Your task to perform on an android device: Go to calendar. Show me events next week Image 0: 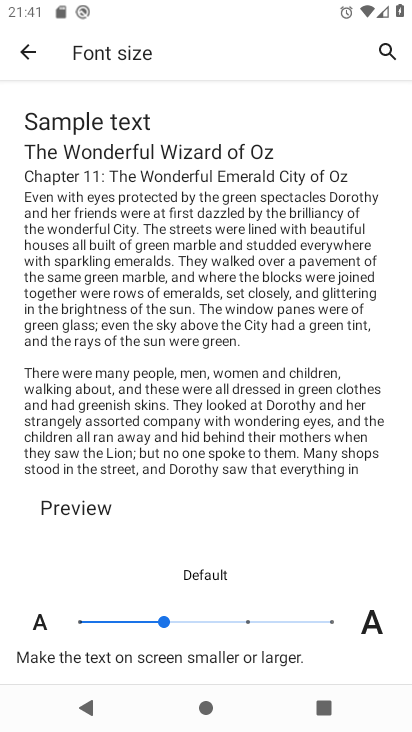
Step 0: press home button
Your task to perform on an android device: Go to calendar. Show me events next week Image 1: 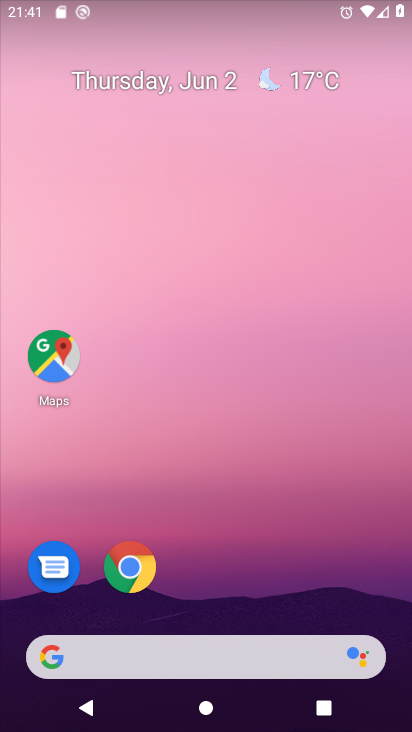
Step 1: drag from (207, 533) to (253, 46)
Your task to perform on an android device: Go to calendar. Show me events next week Image 2: 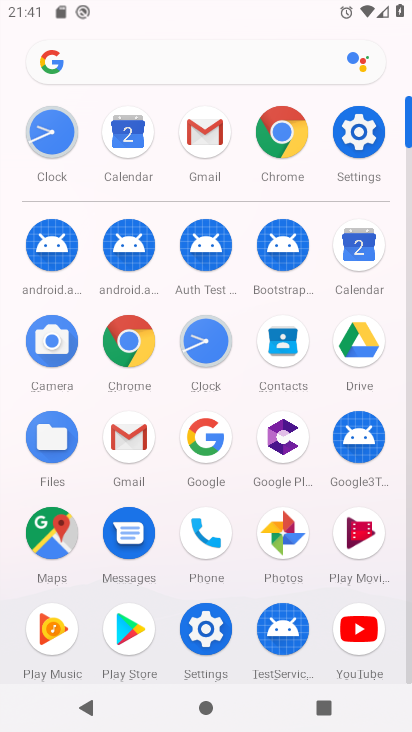
Step 2: click (367, 257)
Your task to perform on an android device: Go to calendar. Show me events next week Image 3: 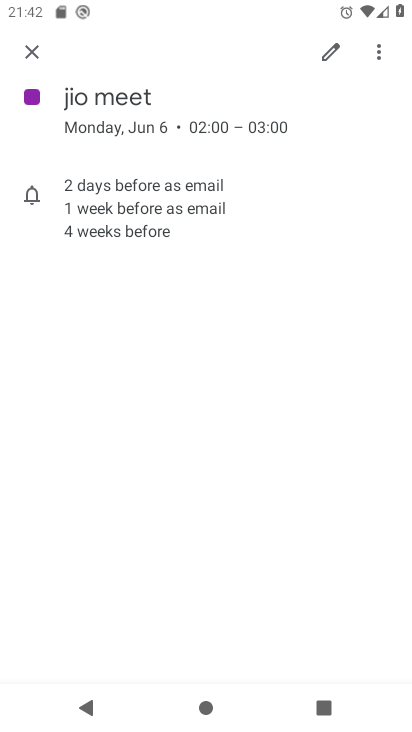
Step 3: click (31, 54)
Your task to perform on an android device: Go to calendar. Show me events next week Image 4: 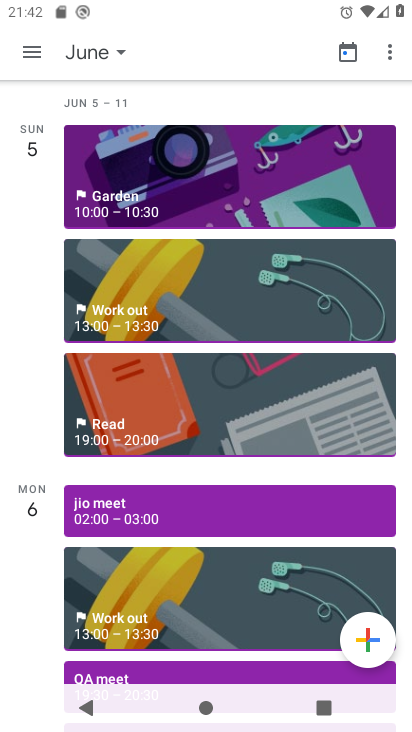
Step 4: click (31, 54)
Your task to perform on an android device: Go to calendar. Show me events next week Image 5: 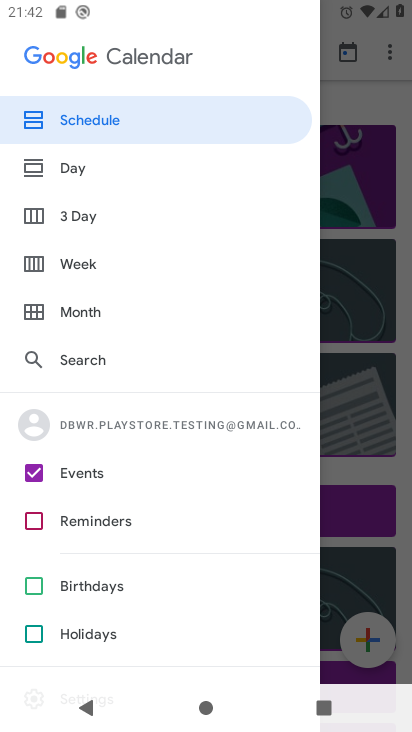
Step 5: click (93, 268)
Your task to perform on an android device: Go to calendar. Show me events next week Image 6: 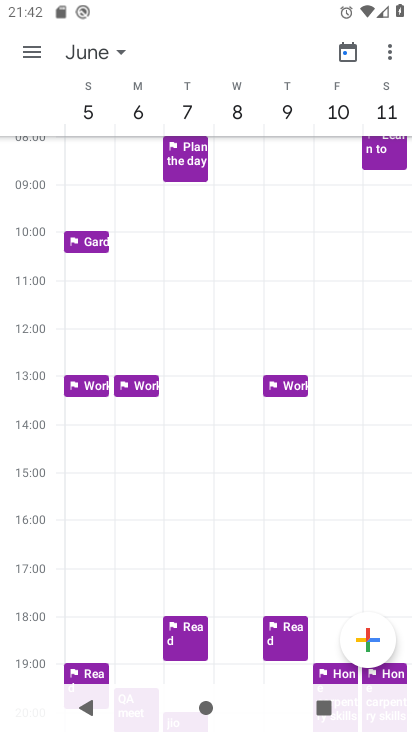
Step 6: task complete